Your task to perform on an android device: Open internet settings Image 0: 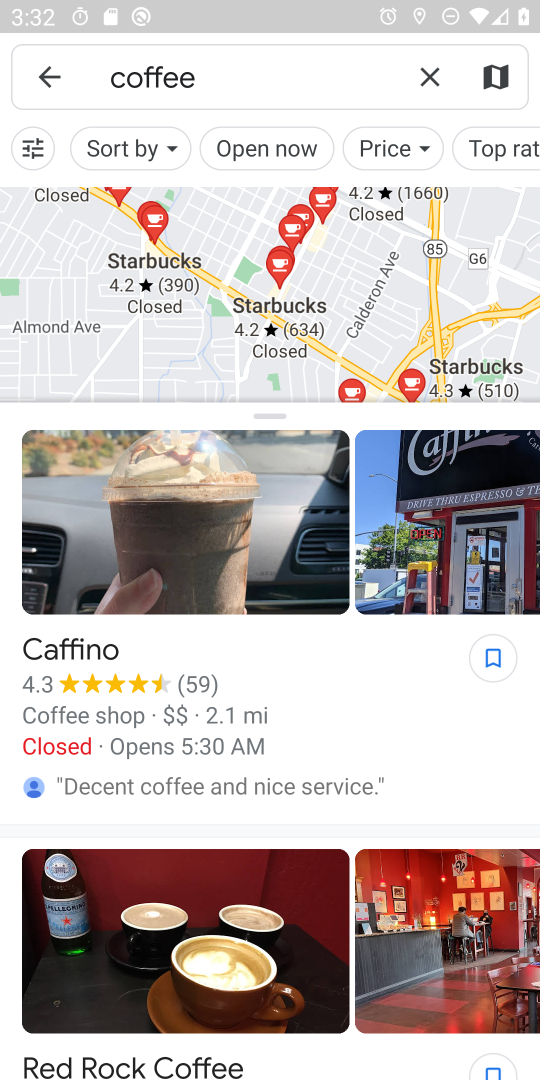
Step 0: press home button
Your task to perform on an android device: Open internet settings Image 1: 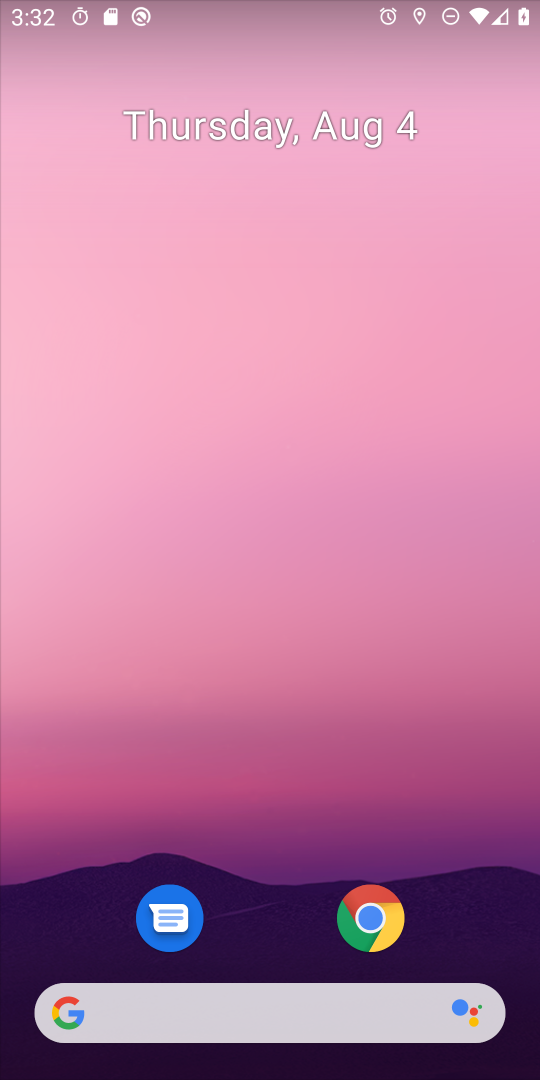
Step 1: drag from (295, 891) to (258, 435)
Your task to perform on an android device: Open internet settings Image 2: 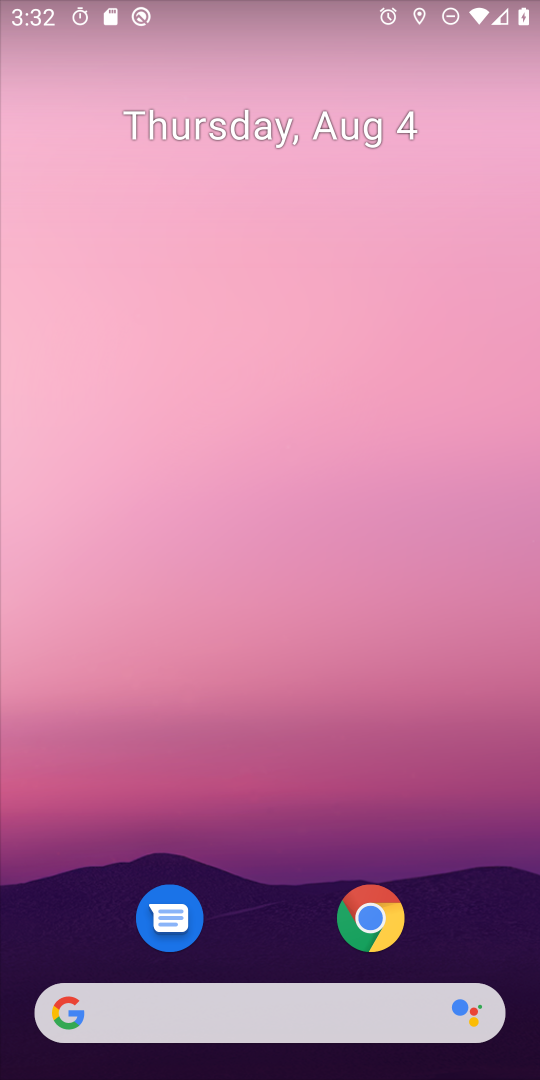
Step 2: drag from (266, 878) to (266, 295)
Your task to perform on an android device: Open internet settings Image 3: 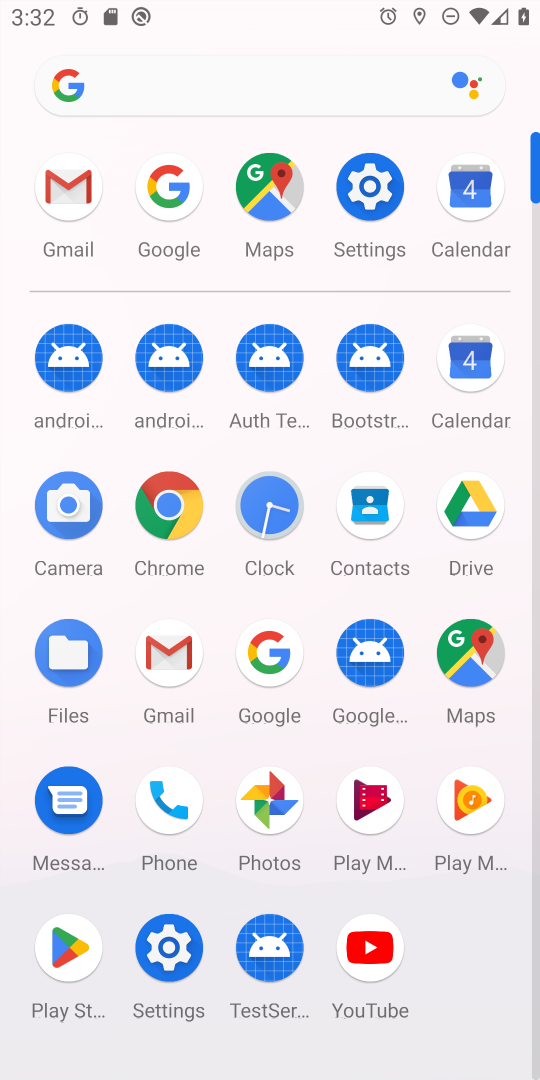
Step 3: click (352, 188)
Your task to perform on an android device: Open internet settings Image 4: 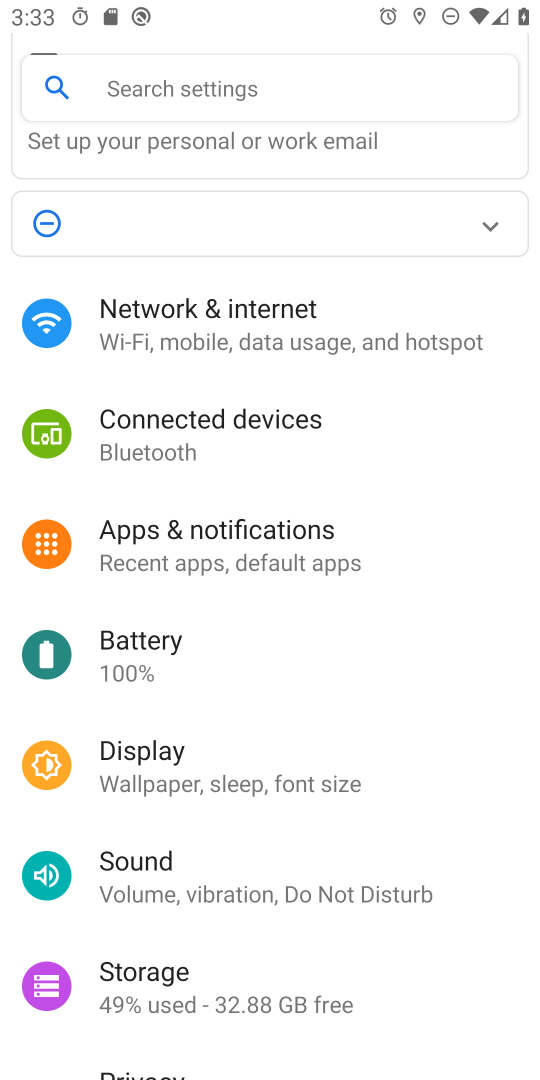
Step 4: click (300, 297)
Your task to perform on an android device: Open internet settings Image 5: 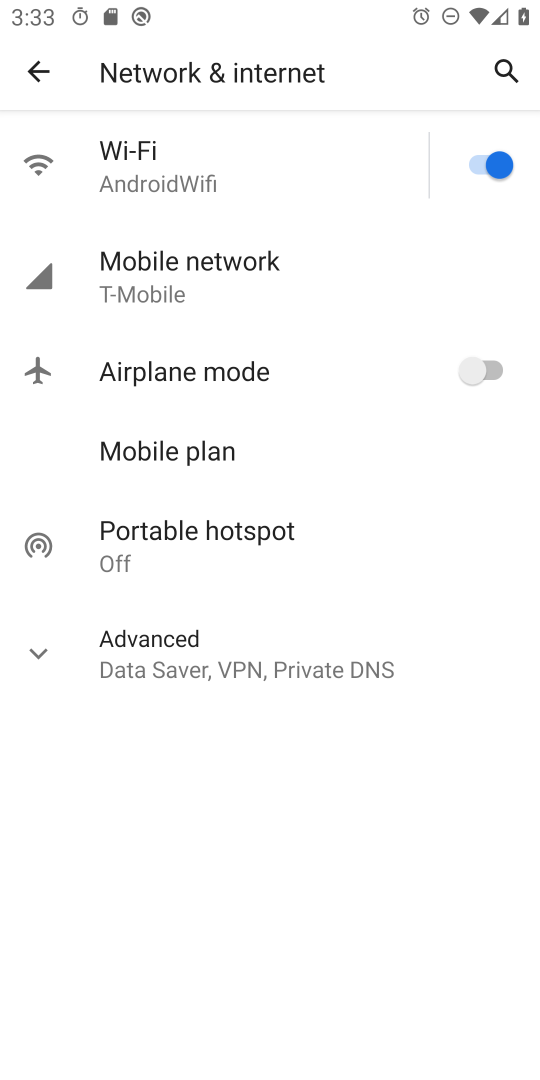
Step 5: task complete